Your task to perform on an android device: open a bookmark in the chrome app Image 0: 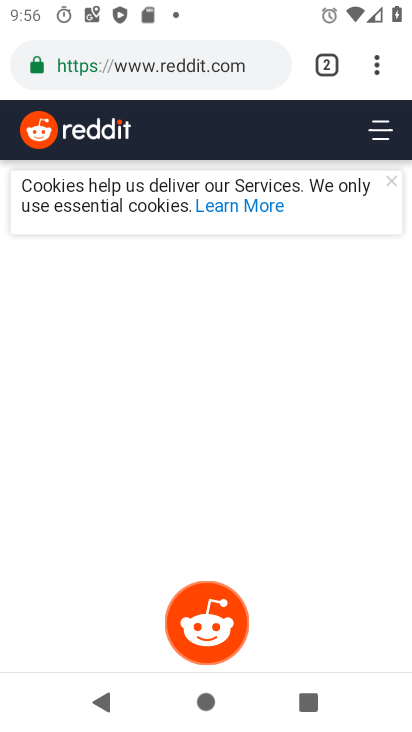
Step 0: drag from (372, 59) to (194, 262)
Your task to perform on an android device: open a bookmark in the chrome app Image 1: 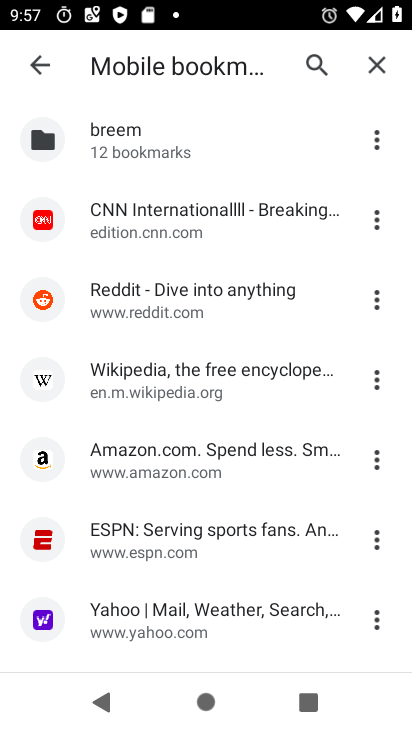
Step 1: task complete